Your task to perform on an android device: install app "NewsBreak: Local News & Alerts" Image 0: 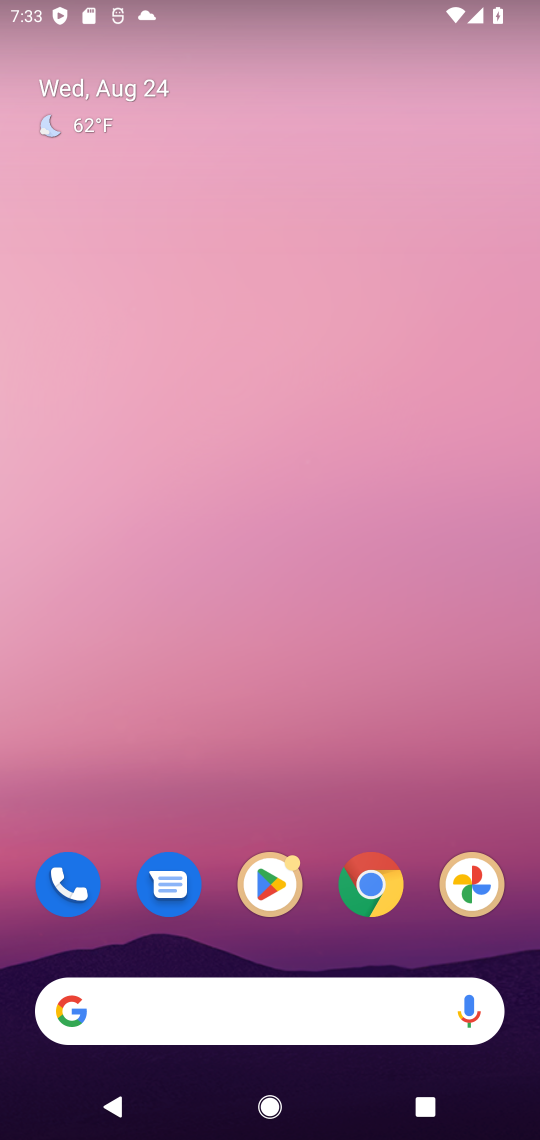
Step 0: click (275, 906)
Your task to perform on an android device: install app "NewsBreak: Local News & Alerts" Image 1: 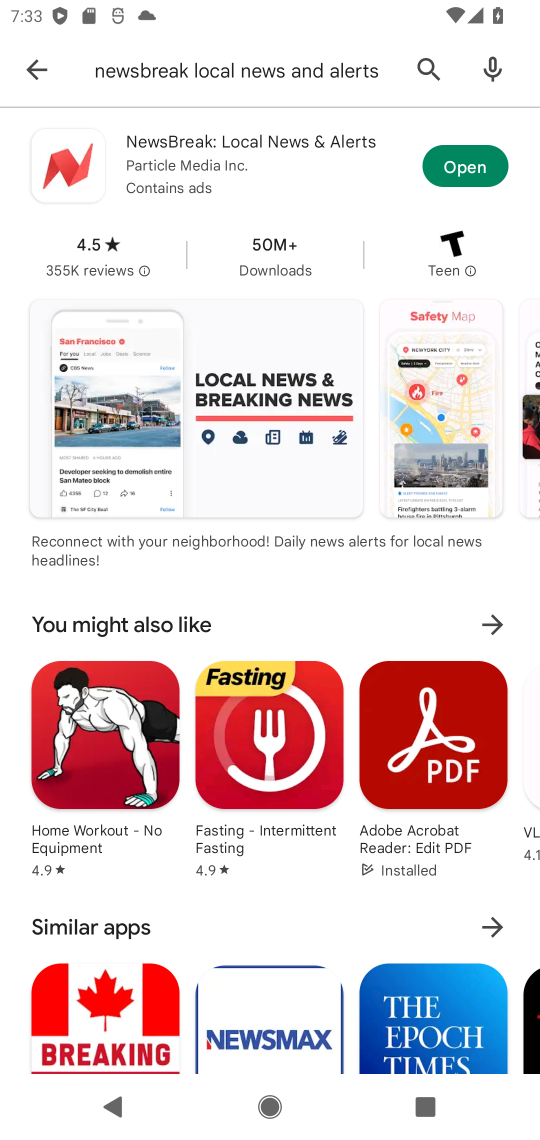
Step 1: task complete